Your task to perform on an android device: delete a single message in the gmail app Image 0: 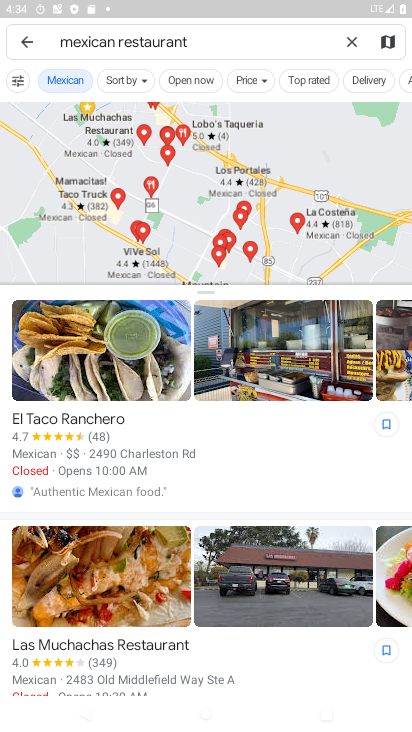
Step 0: task complete